Your task to perform on an android device: toggle javascript in the chrome app Image 0: 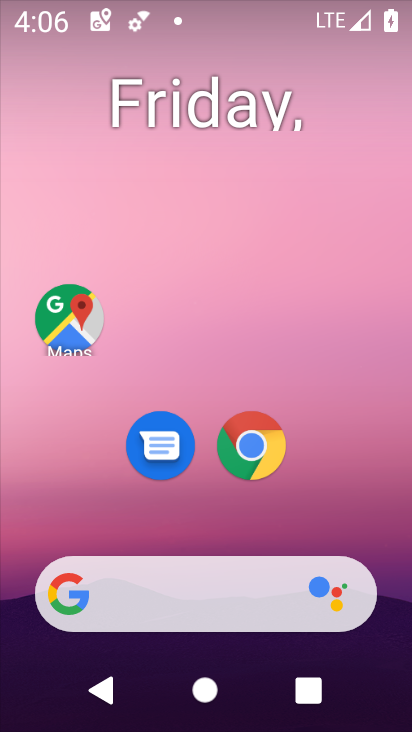
Step 0: click (267, 444)
Your task to perform on an android device: toggle javascript in the chrome app Image 1: 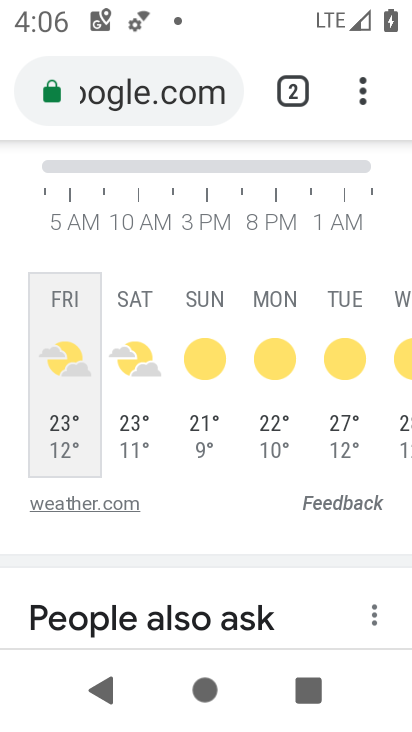
Step 1: click (367, 99)
Your task to perform on an android device: toggle javascript in the chrome app Image 2: 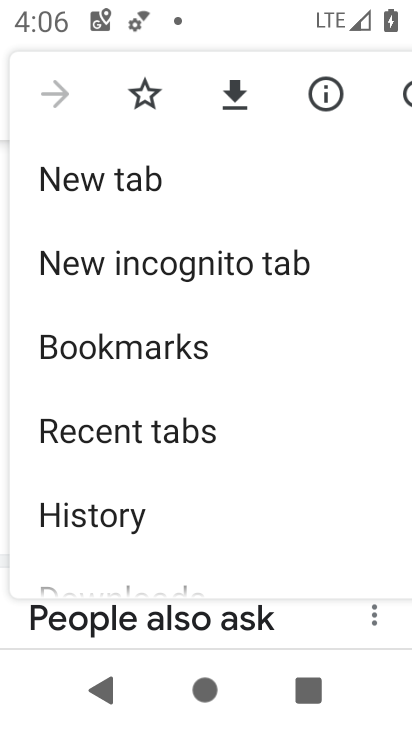
Step 2: drag from (187, 560) to (149, 197)
Your task to perform on an android device: toggle javascript in the chrome app Image 3: 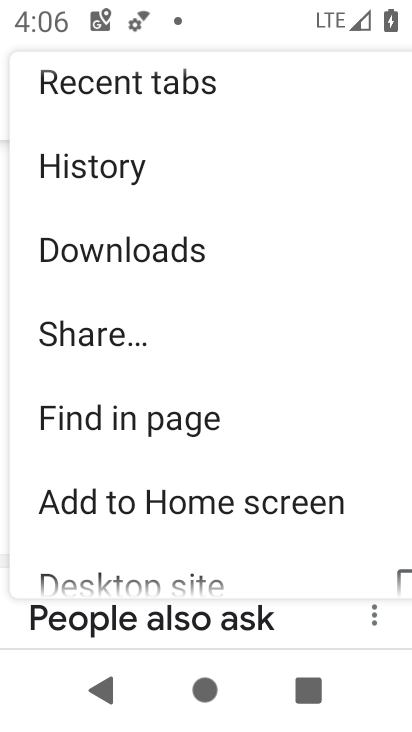
Step 3: drag from (162, 532) to (158, 164)
Your task to perform on an android device: toggle javascript in the chrome app Image 4: 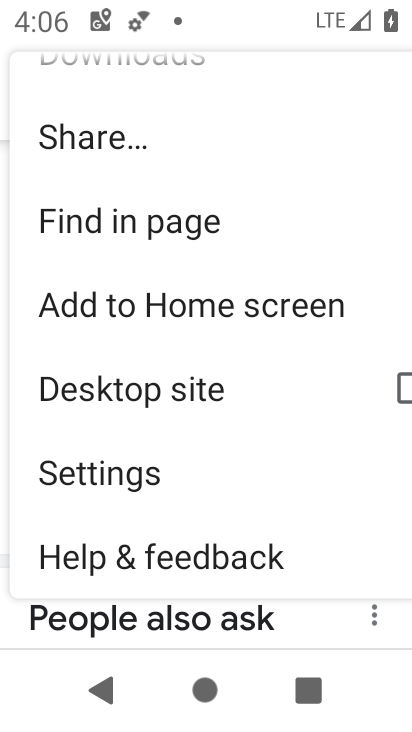
Step 4: click (175, 467)
Your task to perform on an android device: toggle javascript in the chrome app Image 5: 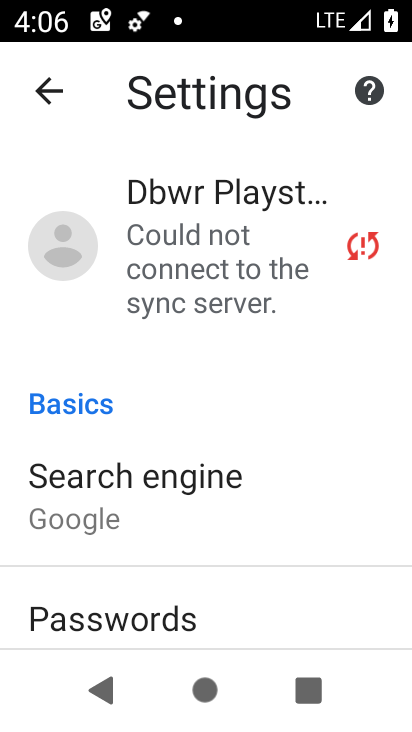
Step 5: drag from (233, 588) to (207, 255)
Your task to perform on an android device: toggle javascript in the chrome app Image 6: 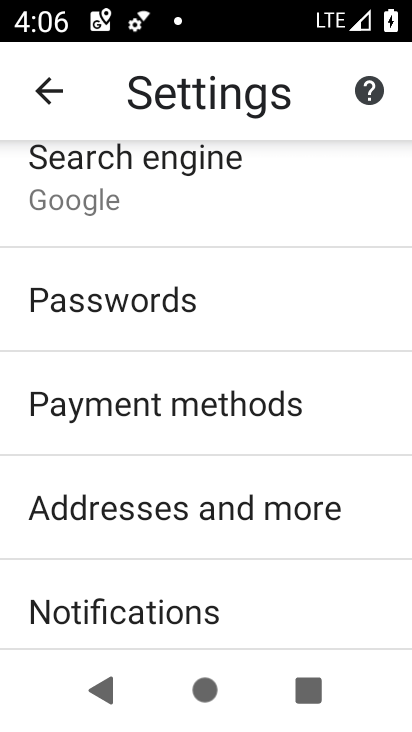
Step 6: drag from (226, 600) to (199, 266)
Your task to perform on an android device: toggle javascript in the chrome app Image 7: 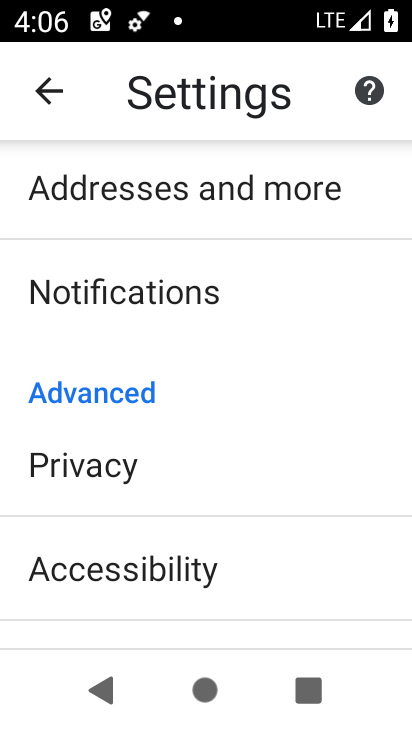
Step 7: drag from (250, 598) to (223, 280)
Your task to perform on an android device: toggle javascript in the chrome app Image 8: 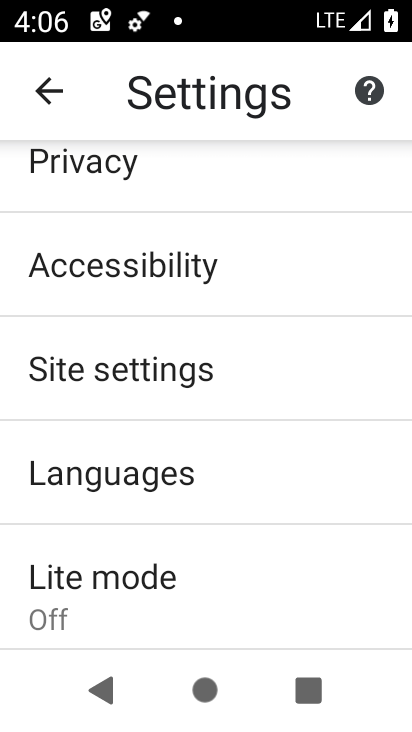
Step 8: click (198, 380)
Your task to perform on an android device: toggle javascript in the chrome app Image 9: 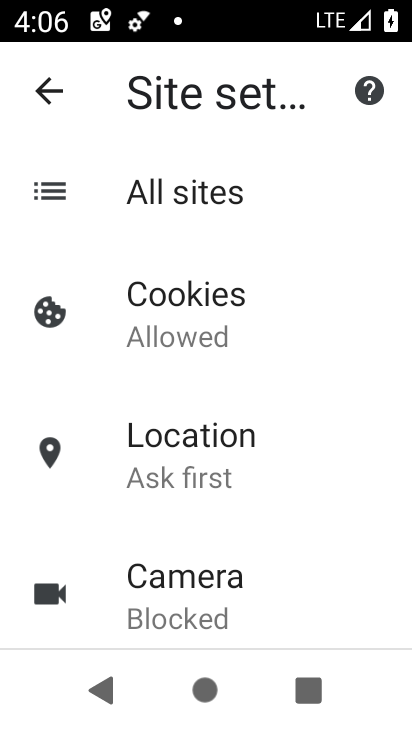
Step 9: drag from (249, 646) to (243, 285)
Your task to perform on an android device: toggle javascript in the chrome app Image 10: 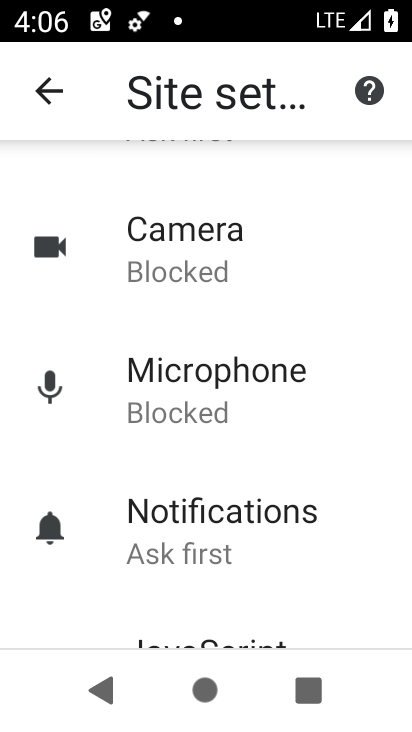
Step 10: drag from (290, 581) to (230, 210)
Your task to perform on an android device: toggle javascript in the chrome app Image 11: 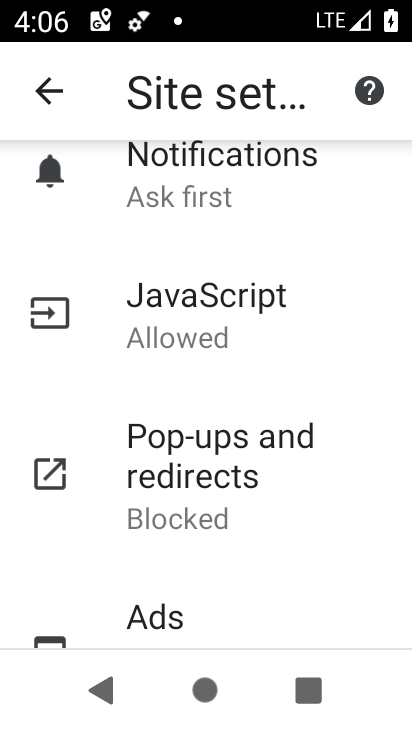
Step 11: click (241, 331)
Your task to perform on an android device: toggle javascript in the chrome app Image 12: 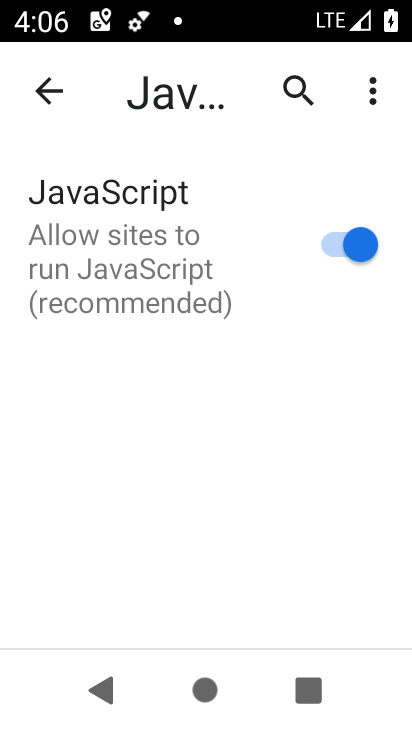
Step 12: click (333, 262)
Your task to perform on an android device: toggle javascript in the chrome app Image 13: 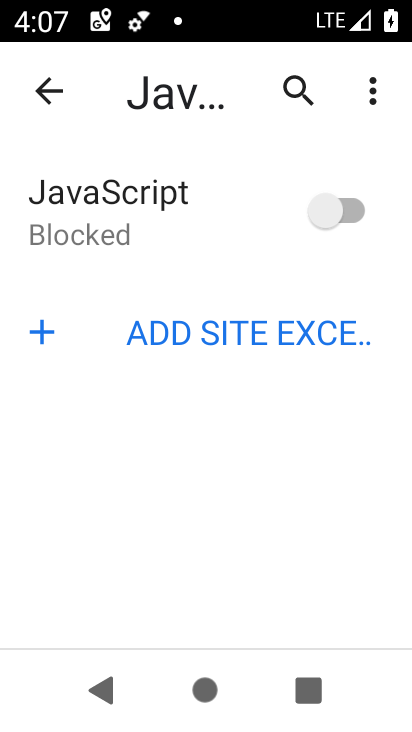
Step 13: task complete